Your task to perform on an android device: toggle show notifications on the lock screen Image 0: 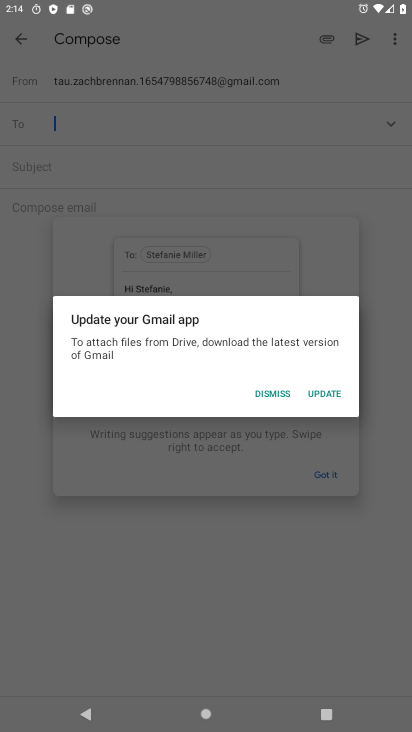
Step 0: press home button
Your task to perform on an android device: toggle show notifications on the lock screen Image 1: 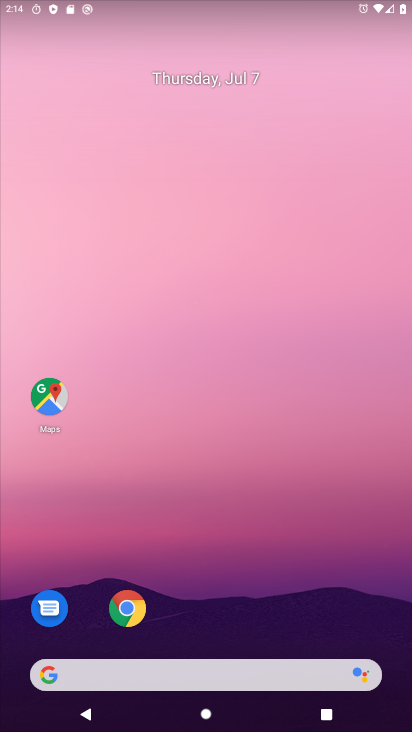
Step 1: drag from (251, 724) to (246, 97)
Your task to perform on an android device: toggle show notifications on the lock screen Image 2: 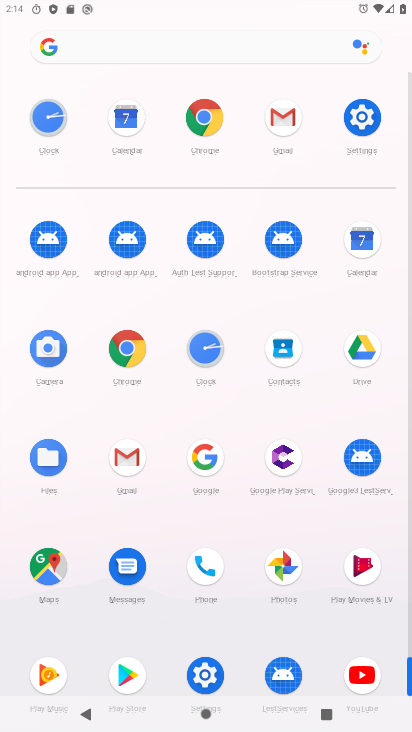
Step 2: click (207, 671)
Your task to perform on an android device: toggle show notifications on the lock screen Image 3: 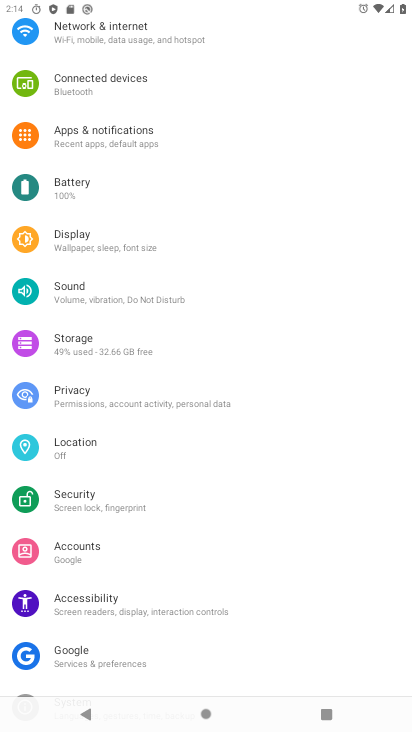
Step 3: click (98, 138)
Your task to perform on an android device: toggle show notifications on the lock screen Image 4: 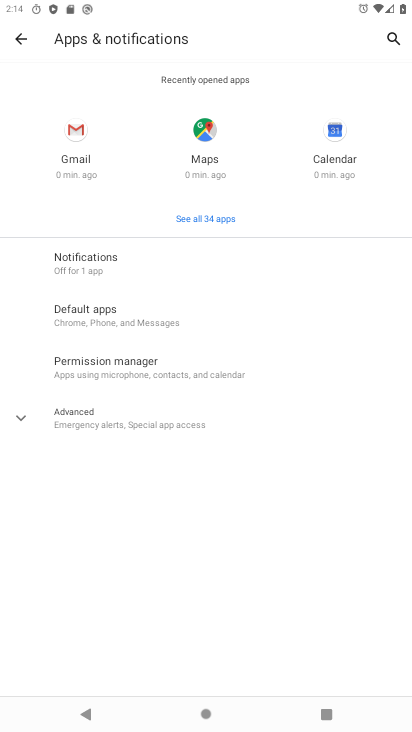
Step 4: click (85, 259)
Your task to perform on an android device: toggle show notifications on the lock screen Image 5: 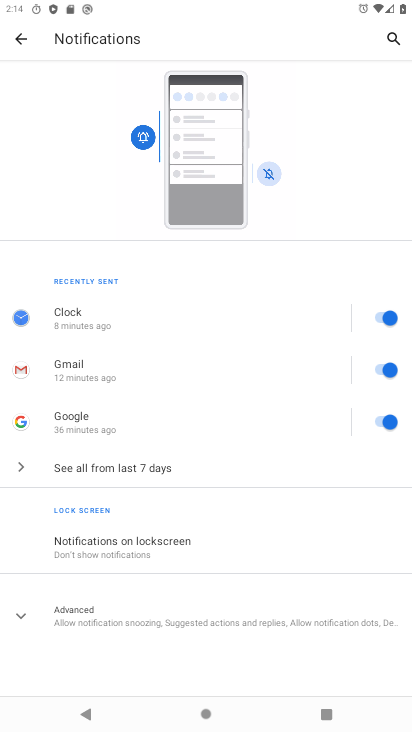
Step 5: click (96, 554)
Your task to perform on an android device: toggle show notifications on the lock screen Image 6: 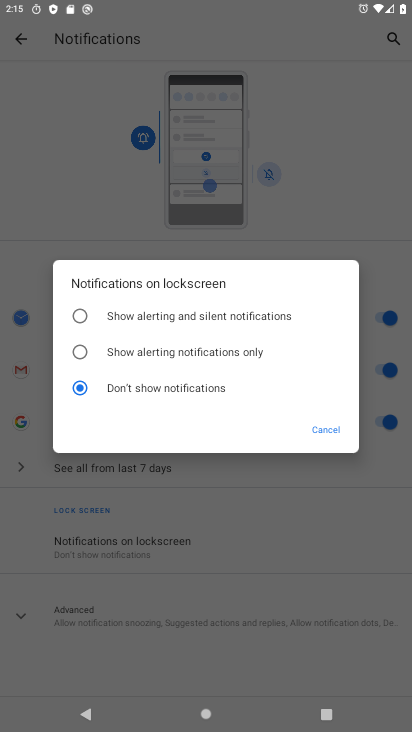
Step 6: click (81, 315)
Your task to perform on an android device: toggle show notifications on the lock screen Image 7: 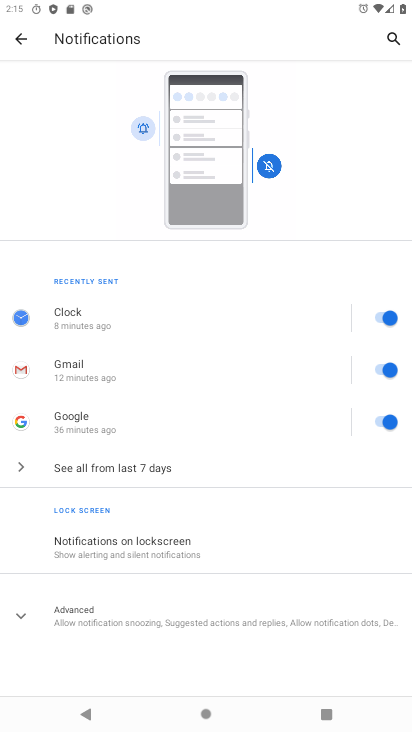
Step 7: task complete